Your task to perform on an android device: check the backup settings in the google photos Image 0: 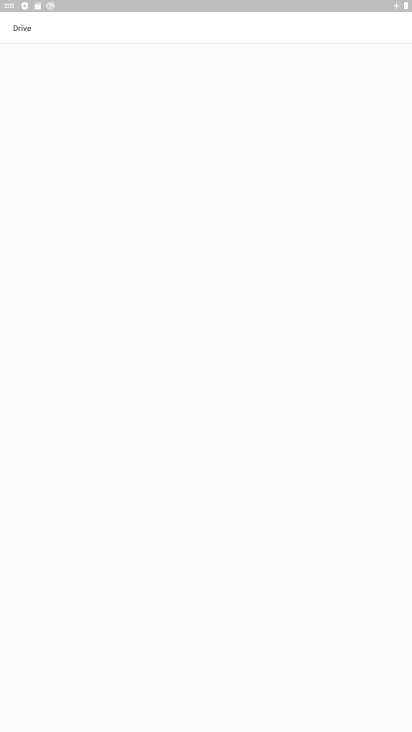
Step 0: press home button
Your task to perform on an android device: check the backup settings in the google photos Image 1: 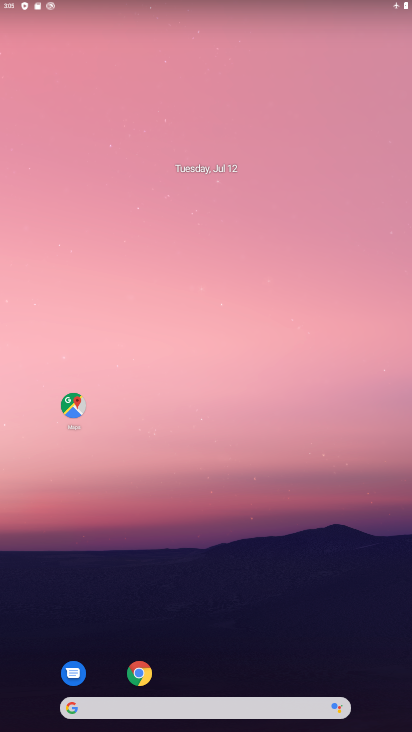
Step 1: drag from (167, 705) to (266, 104)
Your task to perform on an android device: check the backup settings in the google photos Image 2: 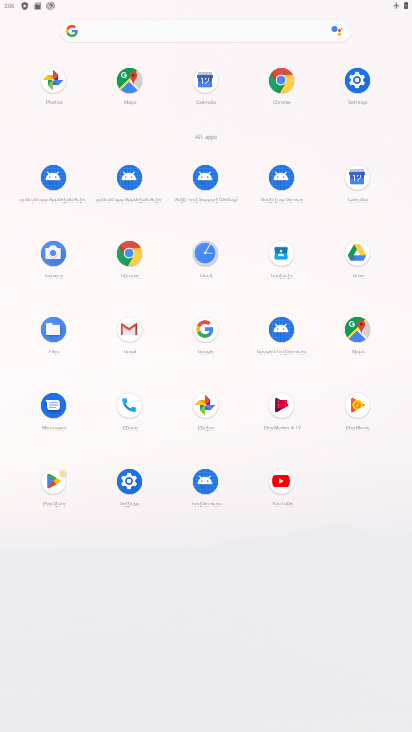
Step 2: click (52, 80)
Your task to perform on an android device: check the backup settings in the google photos Image 3: 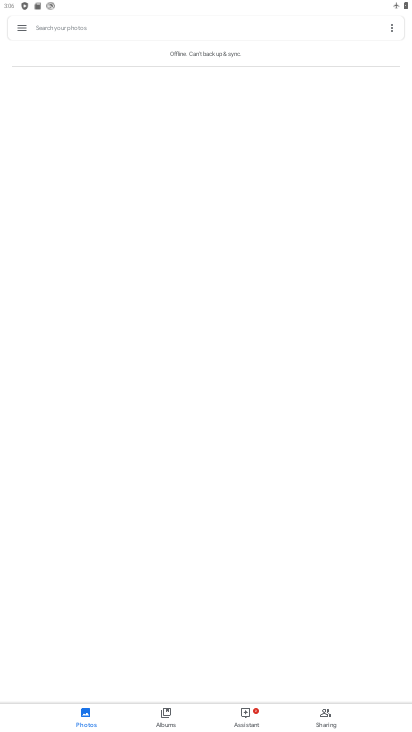
Step 3: click (19, 28)
Your task to perform on an android device: check the backup settings in the google photos Image 4: 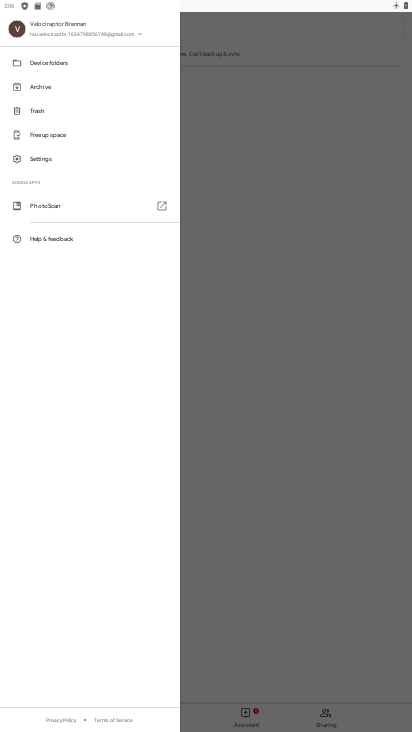
Step 4: click (41, 157)
Your task to perform on an android device: check the backup settings in the google photos Image 5: 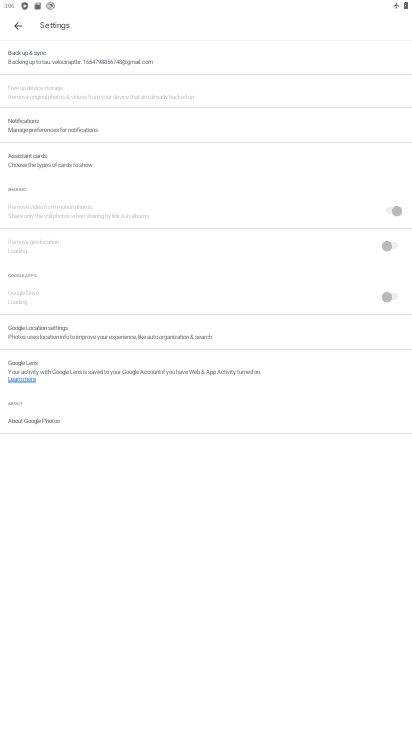
Step 5: click (53, 58)
Your task to perform on an android device: check the backup settings in the google photos Image 6: 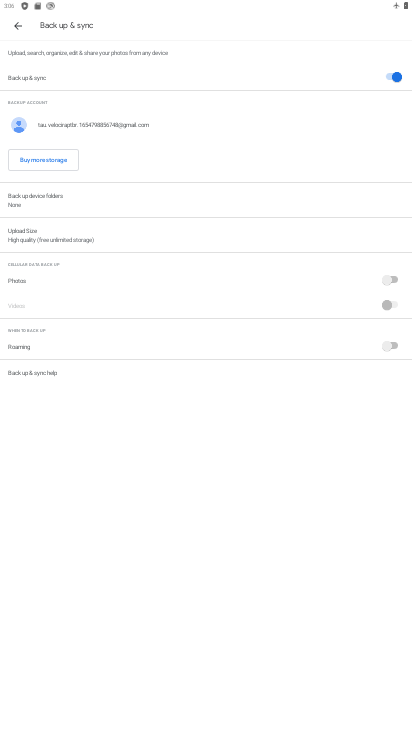
Step 6: task complete